Your task to perform on an android device: snooze an email in the gmail app Image 0: 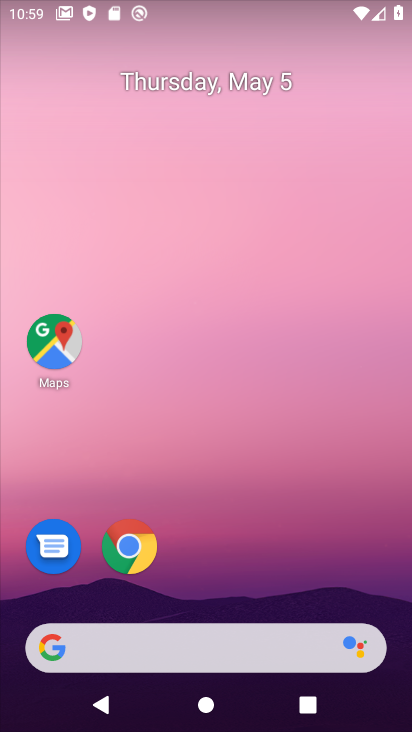
Step 0: drag from (203, 597) to (401, 366)
Your task to perform on an android device: snooze an email in the gmail app Image 1: 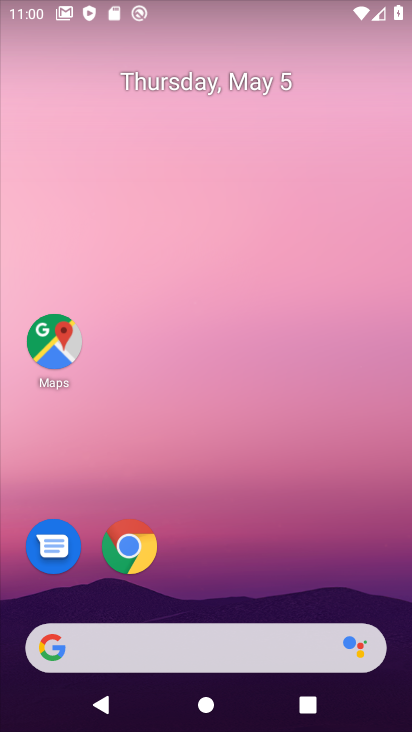
Step 1: drag from (195, 619) to (248, 5)
Your task to perform on an android device: snooze an email in the gmail app Image 2: 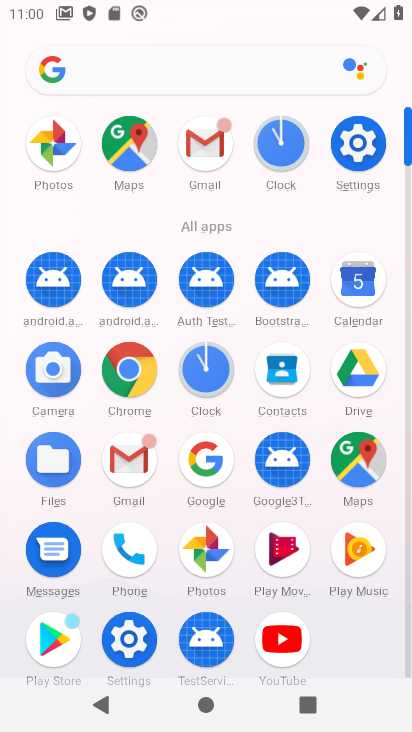
Step 2: click (134, 474)
Your task to perform on an android device: snooze an email in the gmail app Image 3: 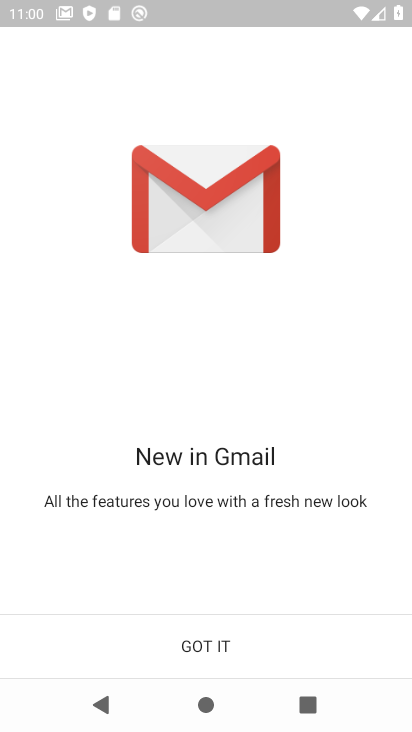
Step 3: click (209, 653)
Your task to perform on an android device: snooze an email in the gmail app Image 4: 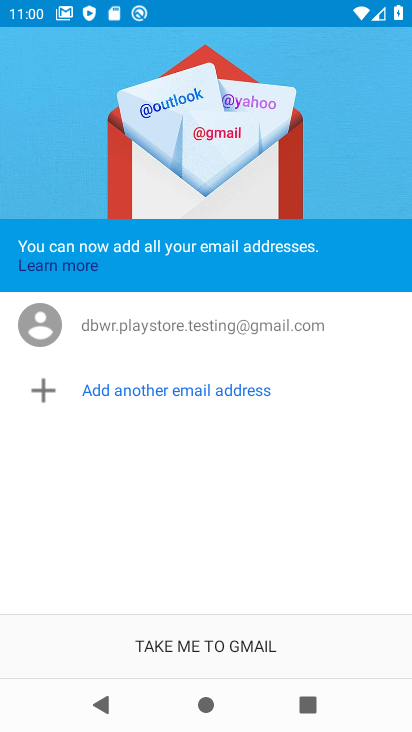
Step 4: click (209, 653)
Your task to perform on an android device: snooze an email in the gmail app Image 5: 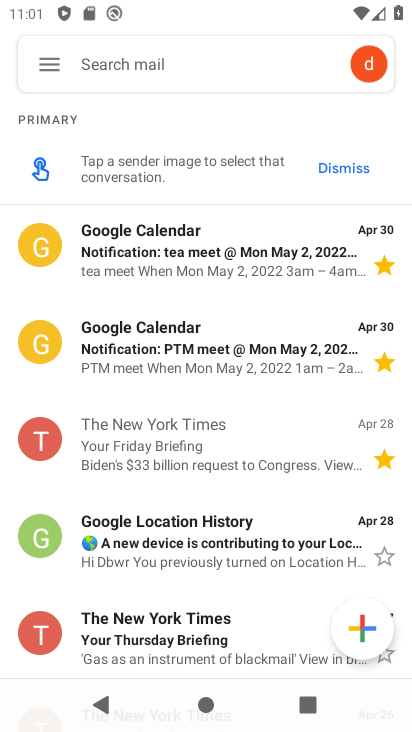
Step 5: click (50, 58)
Your task to perform on an android device: snooze an email in the gmail app Image 6: 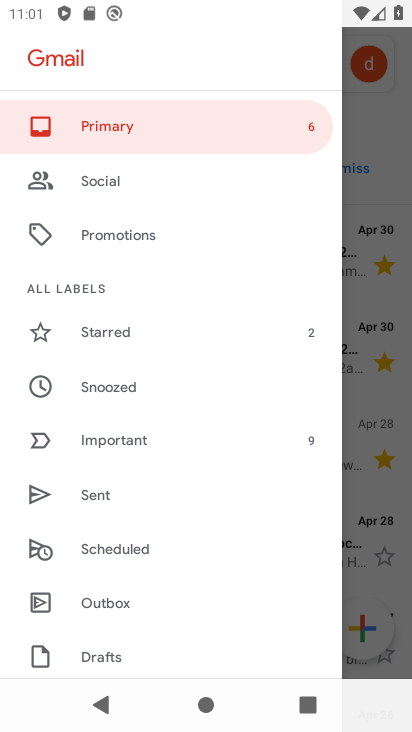
Step 6: click (92, 372)
Your task to perform on an android device: snooze an email in the gmail app Image 7: 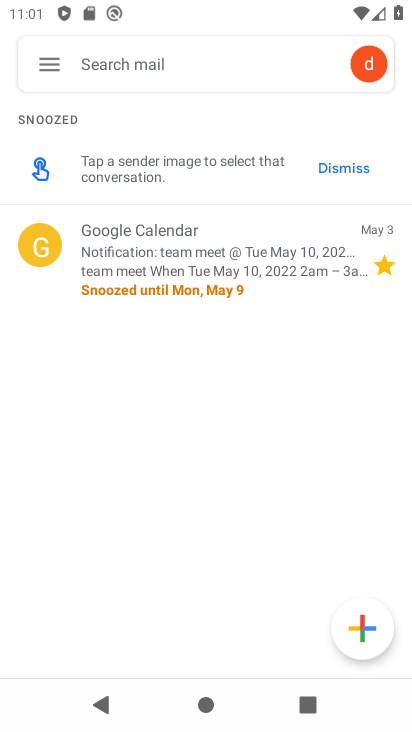
Step 7: click (41, 68)
Your task to perform on an android device: snooze an email in the gmail app Image 8: 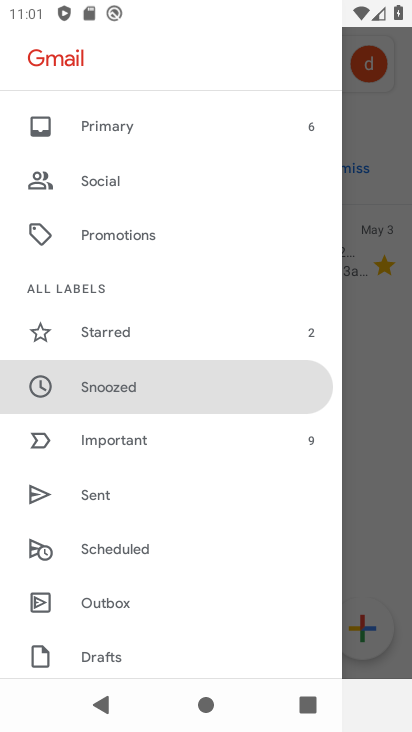
Step 8: click (120, 129)
Your task to perform on an android device: snooze an email in the gmail app Image 9: 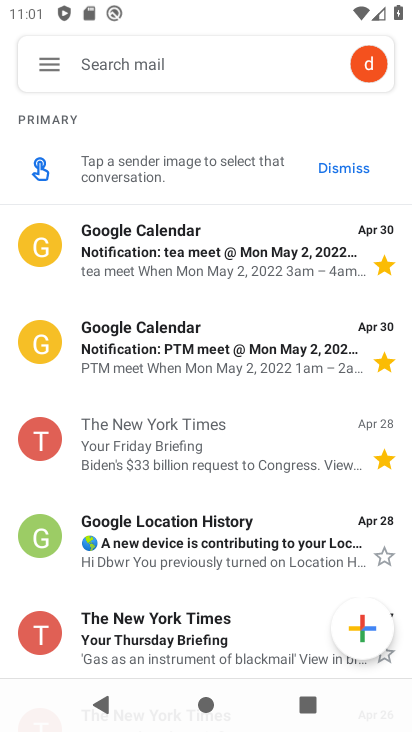
Step 9: click (207, 230)
Your task to perform on an android device: snooze an email in the gmail app Image 10: 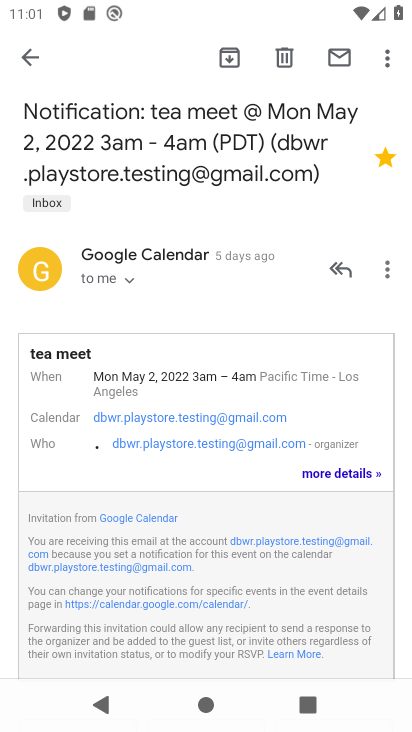
Step 10: click (390, 57)
Your task to perform on an android device: snooze an email in the gmail app Image 11: 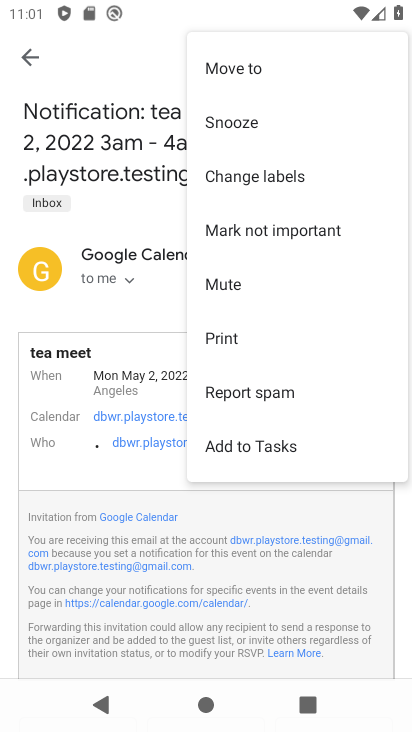
Step 11: click (239, 129)
Your task to perform on an android device: snooze an email in the gmail app Image 12: 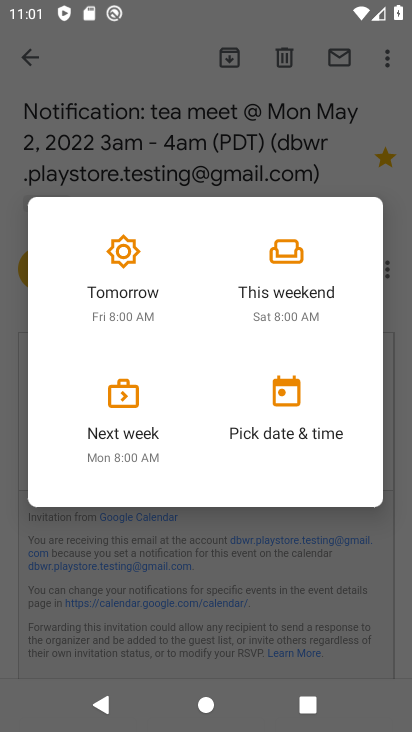
Step 12: click (280, 393)
Your task to perform on an android device: snooze an email in the gmail app Image 13: 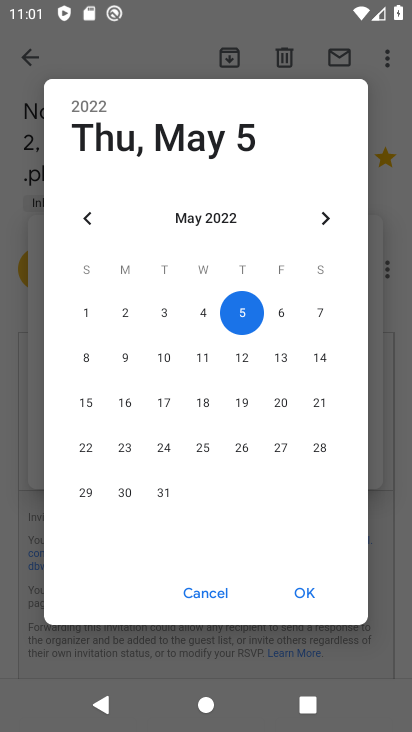
Step 13: click (303, 585)
Your task to perform on an android device: snooze an email in the gmail app Image 14: 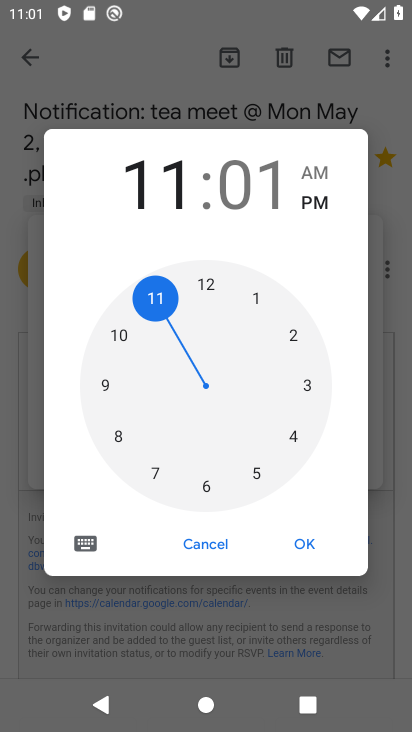
Step 14: click (307, 549)
Your task to perform on an android device: snooze an email in the gmail app Image 15: 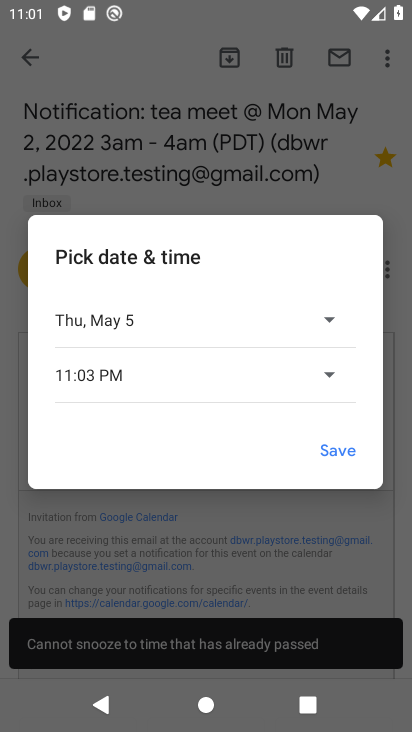
Step 15: task complete